Your task to perform on an android device: Add "jbl flip 4" to the cart on target Image 0: 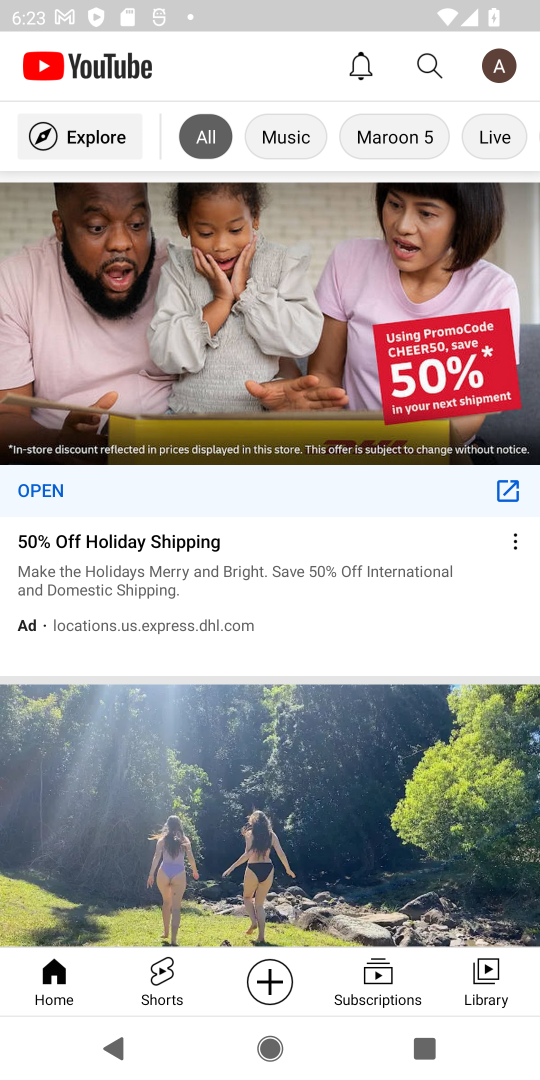
Step 0: press home button
Your task to perform on an android device: Add "jbl flip 4" to the cart on target Image 1: 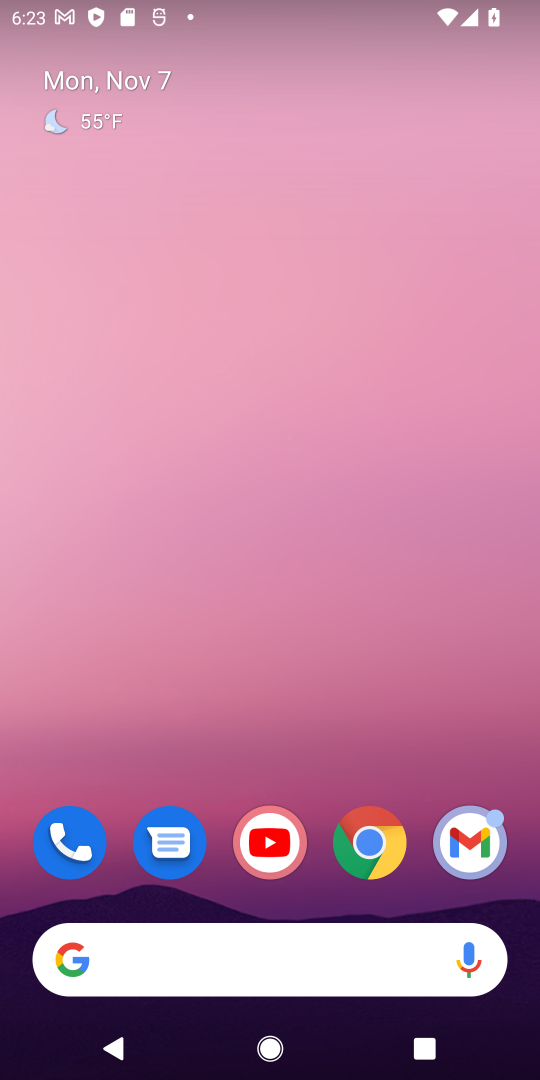
Step 1: click (367, 843)
Your task to perform on an android device: Add "jbl flip 4" to the cart on target Image 2: 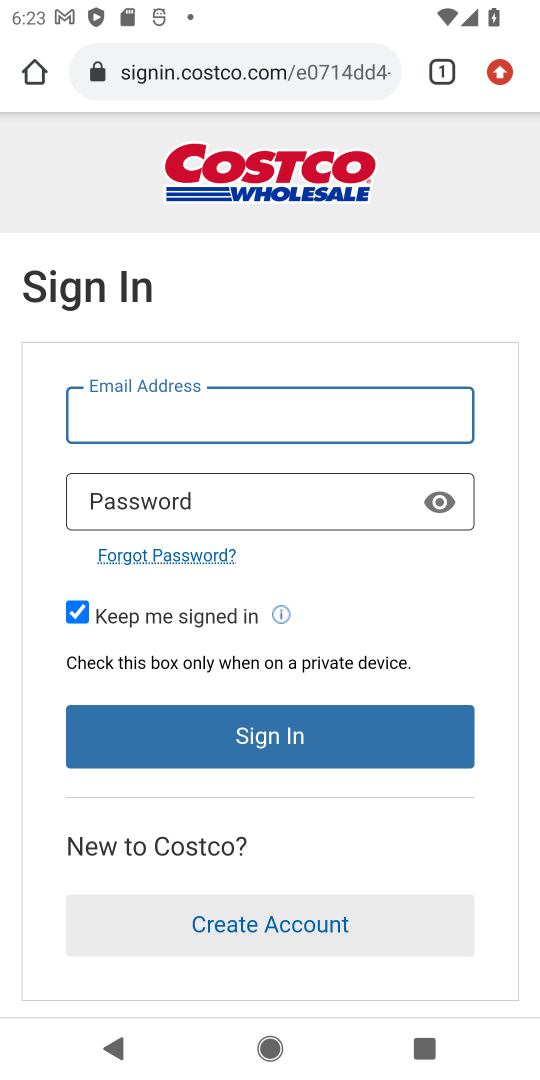
Step 2: click (184, 76)
Your task to perform on an android device: Add "jbl flip 4" to the cart on target Image 3: 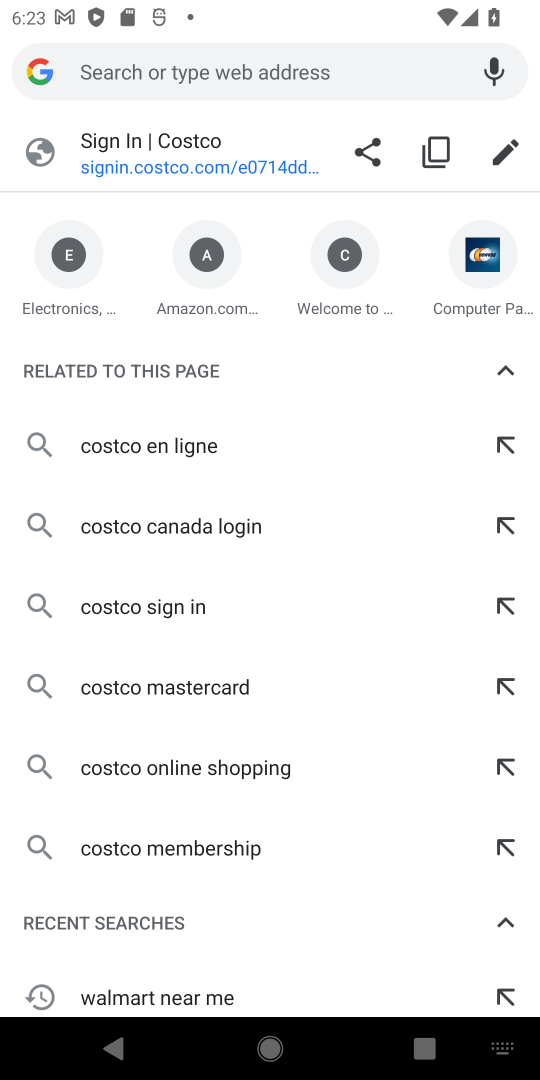
Step 3: type "target"
Your task to perform on an android device: Add "jbl flip 4" to the cart on target Image 4: 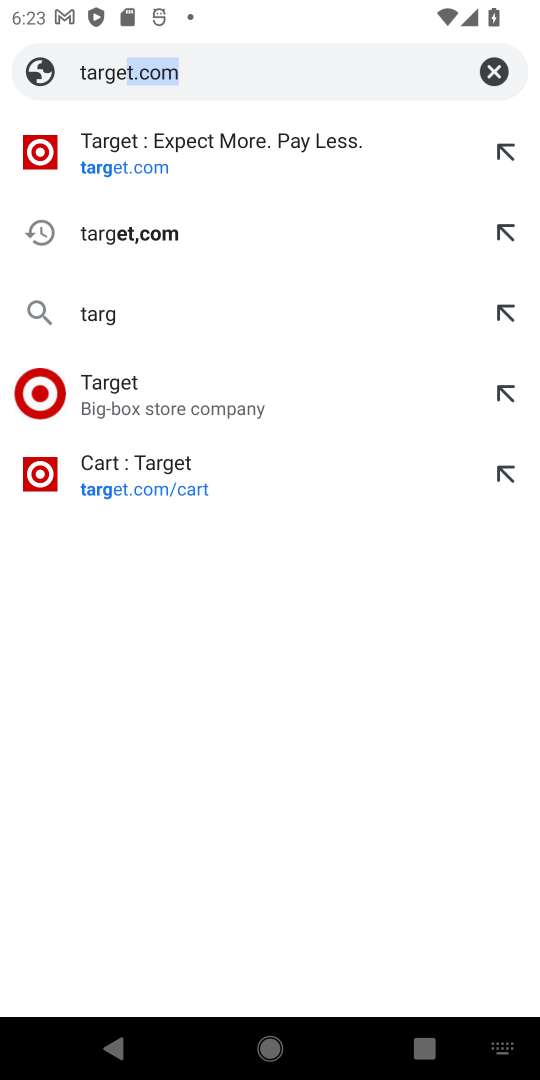
Step 4: press enter
Your task to perform on an android device: Add "jbl flip 4" to the cart on target Image 5: 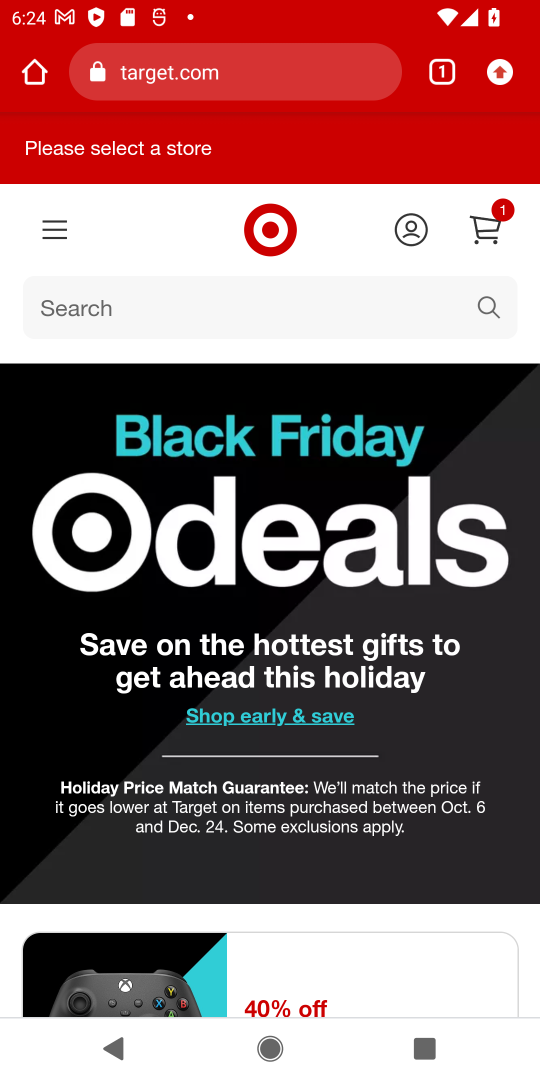
Step 5: click (124, 299)
Your task to perform on an android device: Add "jbl flip 4" to the cart on target Image 6: 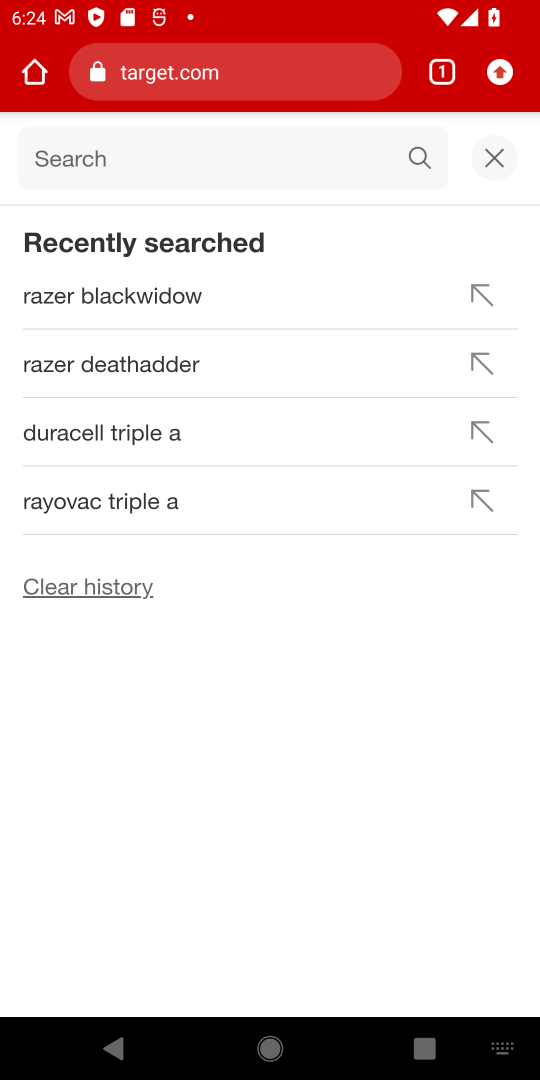
Step 6: type "jbl flip 4"
Your task to perform on an android device: Add "jbl flip 4" to the cart on target Image 7: 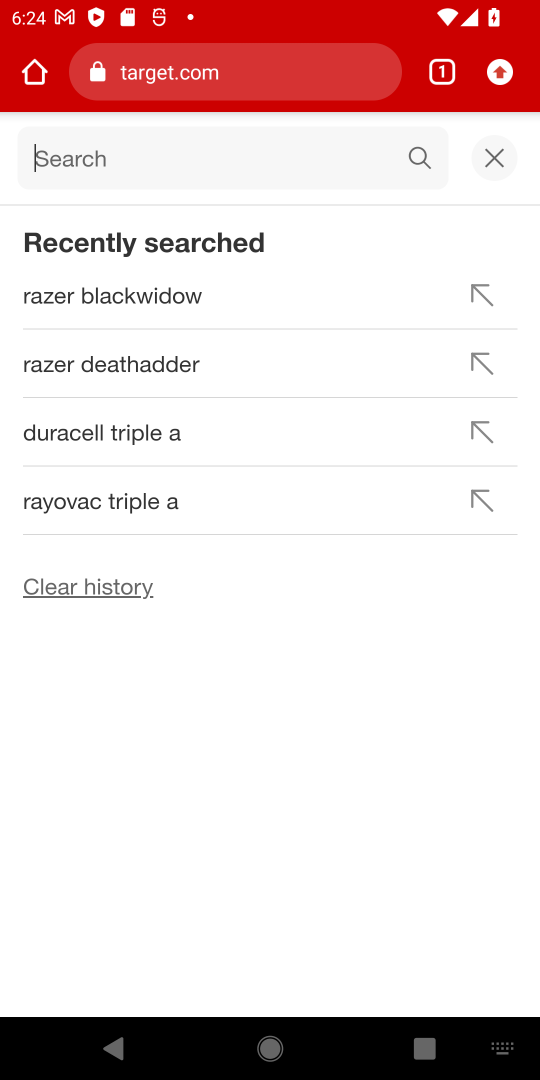
Step 7: press enter
Your task to perform on an android device: Add "jbl flip 4" to the cart on target Image 8: 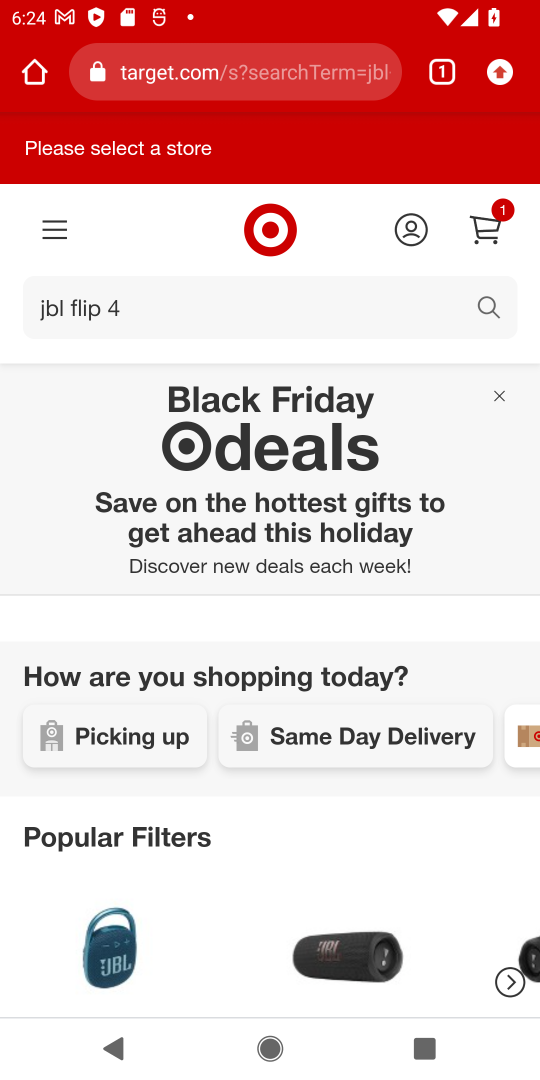
Step 8: drag from (341, 856) to (356, 232)
Your task to perform on an android device: Add "jbl flip 4" to the cart on target Image 9: 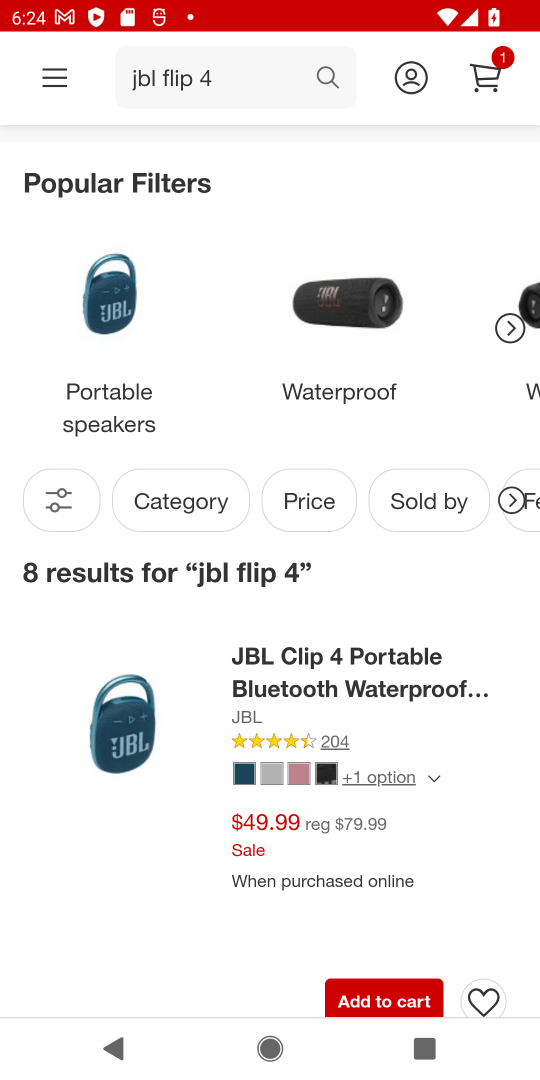
Step 9: drag from (167, 796) to (256, 568)
Your task to perform on an android device: Add "jbl flip 4" to the cart on target Image 10: 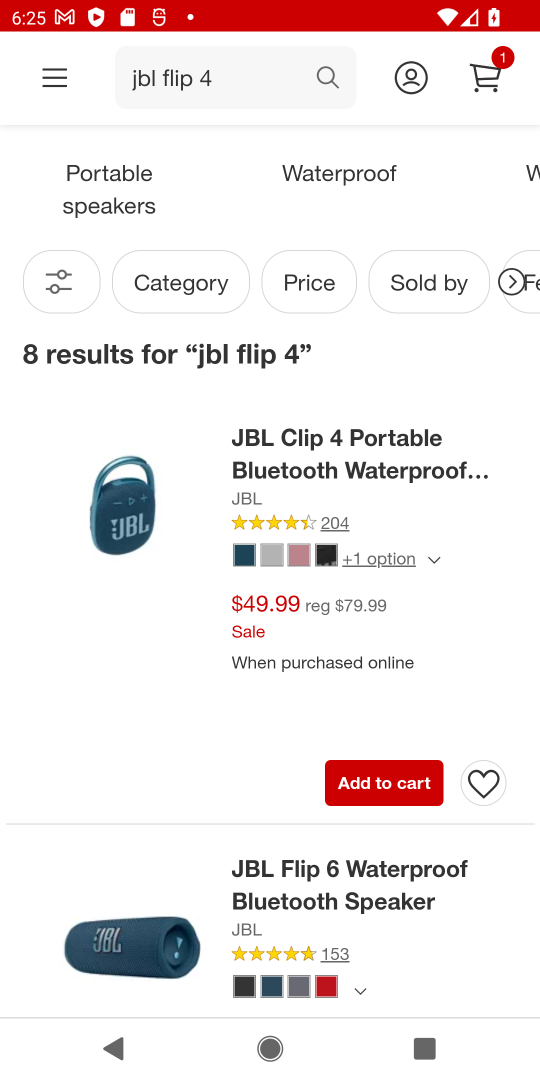
Step 10: click (363, 782)
Your task to perform on an android device: Add "jbl flip 4" to the cart on target Image 11: 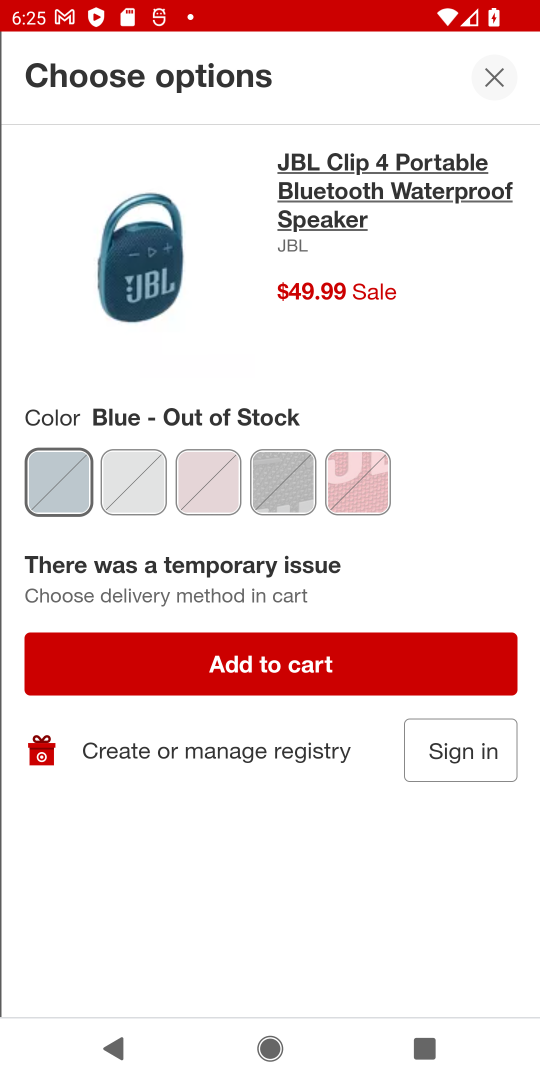
Step 11: click (268, 671)
Your task to perform on an android device: Add "jbl flip 4" to the cart on target Image 12: 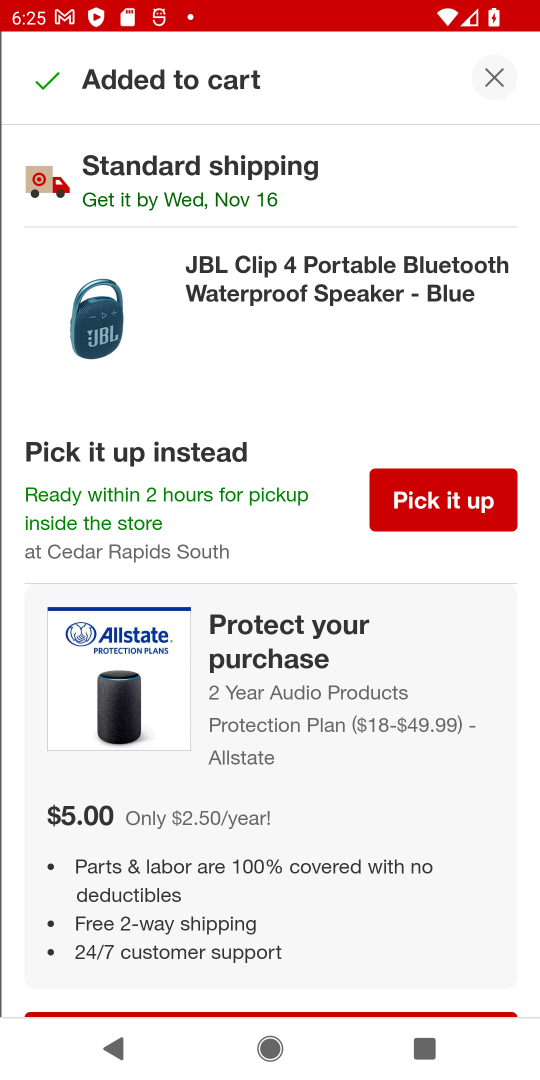
Step 12: click (495, 74)
Your task to perform on an android device: Add "jbl flip 4" to the cart on target Image 13: 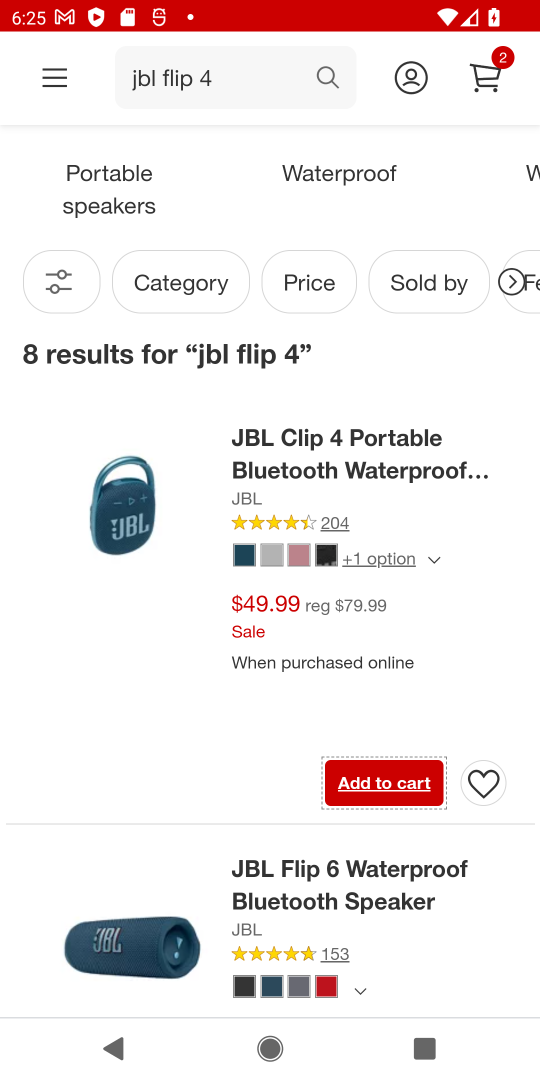
Step 13: click (494, 59)
Your task to perform on an android device: Add "jbl flip 4" to the cart on target Image 14: 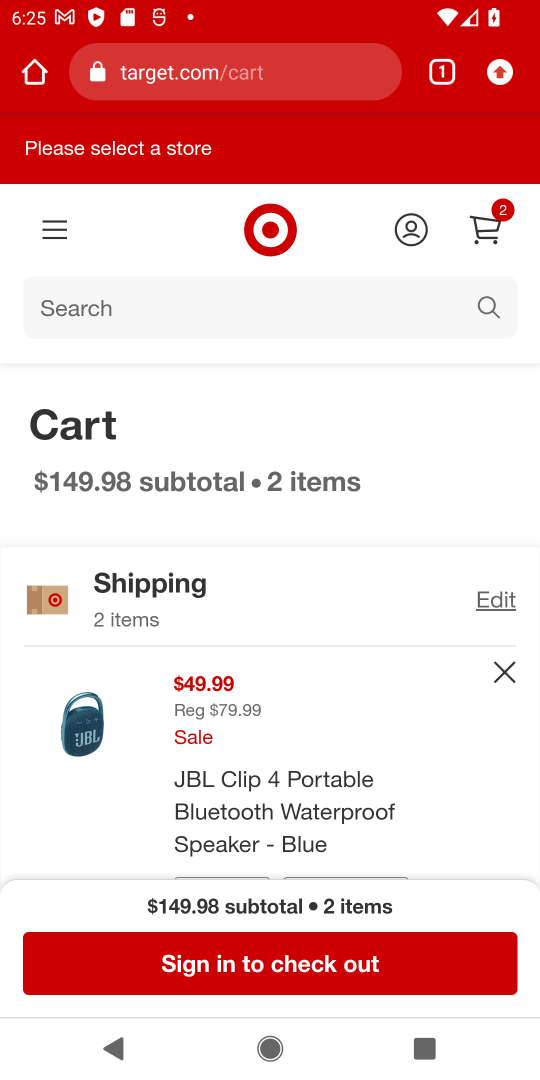
Step 14: drag from (246, 743) to (449, 106)
Your task to perform on an android device: Add "jbl flip 4" to the cart on target Image 15: 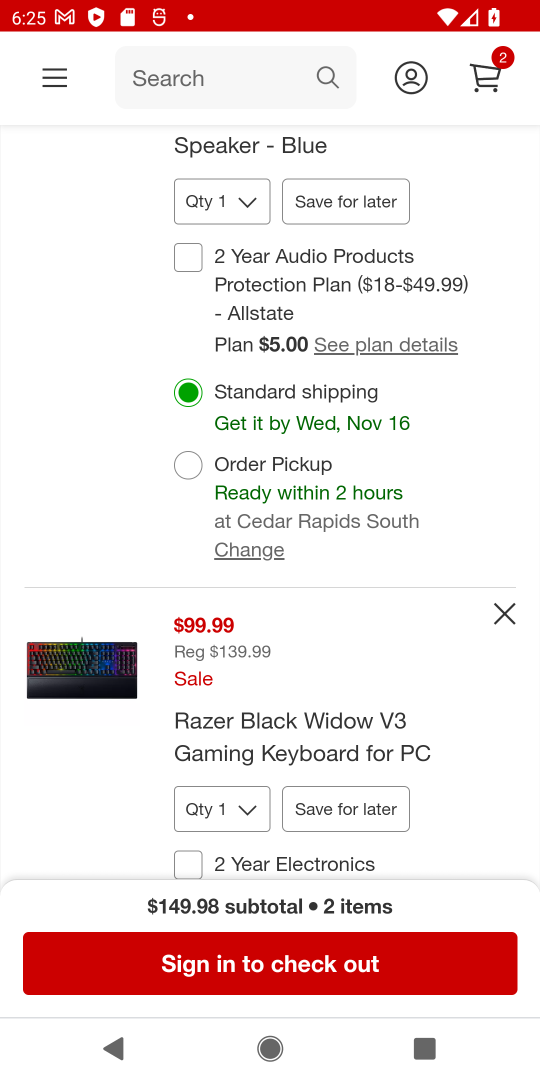
Step 15: click (511, 607)
Your task to perform on an android device: Add "jbl flip 4" to the cart on target Image 16: 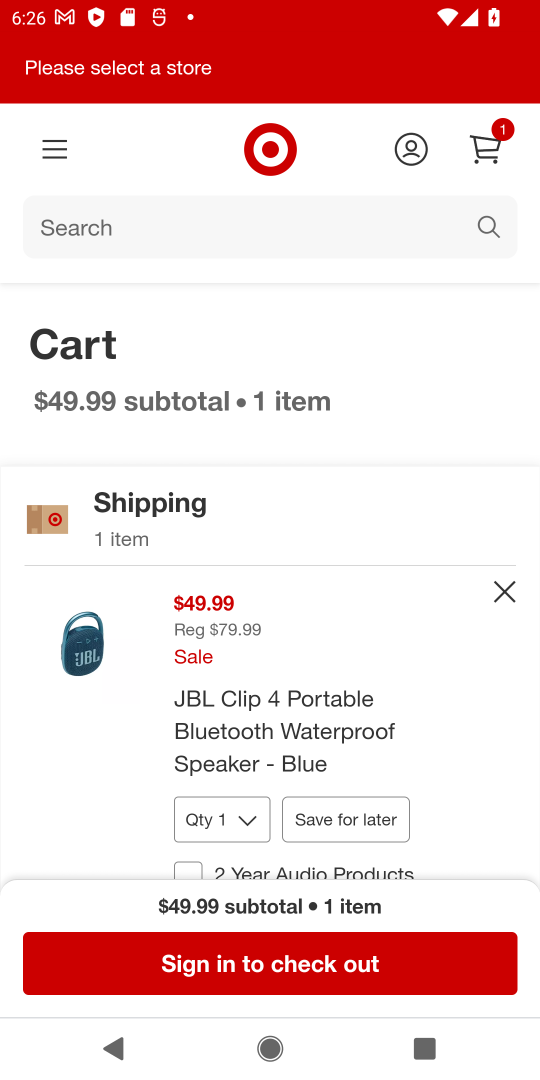
Step 16: task complete